Your task to perform on an android device: turn on translation in the chrome app Image 0: 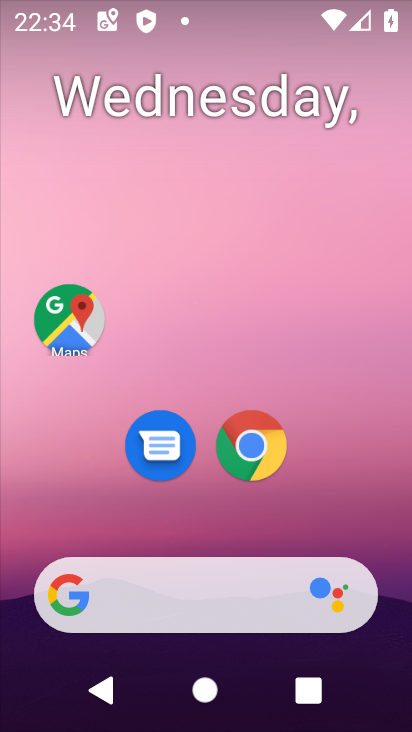
Step 0: click (252, 440)
Your task to perform on an android device: turn on translation in the chrome app Image 1: 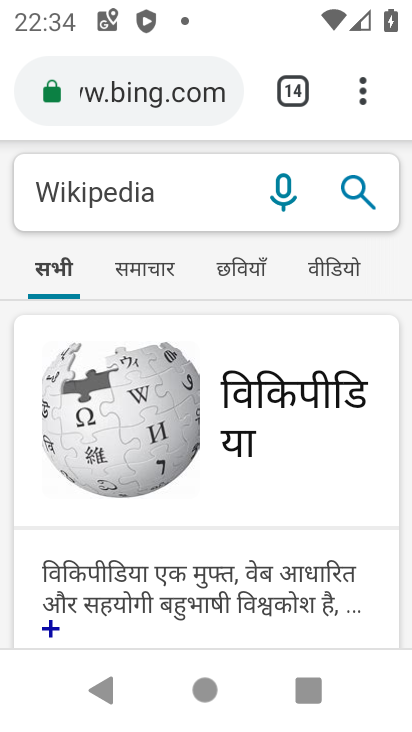
Step 1: click (364, 95)
Your task to perform on an android device: turn on translation in the chrome app Image 2: 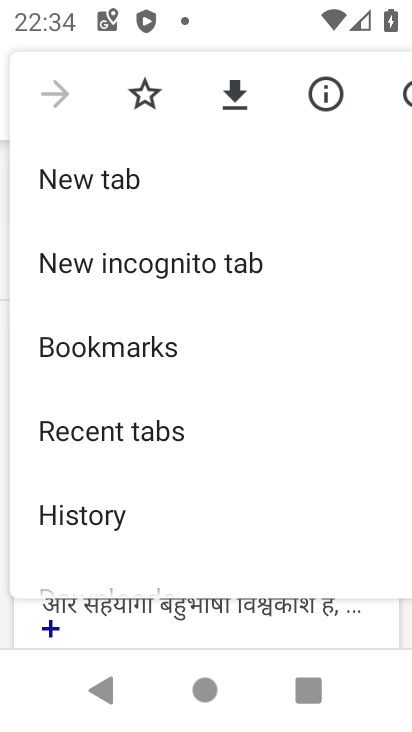
Step 2: drag from (183, 504) to (231, 214)
Your task to perform on an android device: turn on translation in the chrome app Image 3: 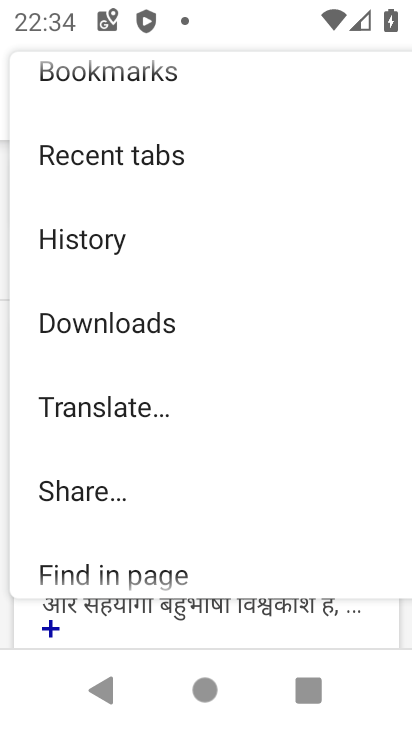
Step 3: drag from (125, 500) to (163, 123)
Your task to perform on an android device: turn on translation in the chrome app Image 4: 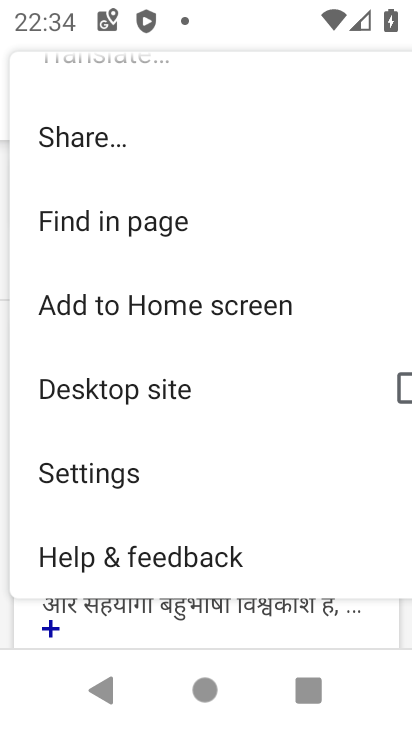
Step 4: click (136, 468)
Your task to perform on an android device: turn on translation in the chrome app Image 5: 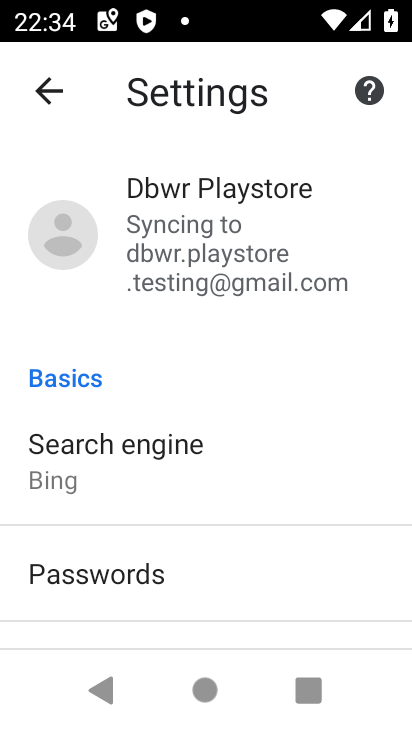
Step 5: drag from (141, 581) to (157, 489)
Your task to perform on an android device: turn on translation in the chrome app Image 6: 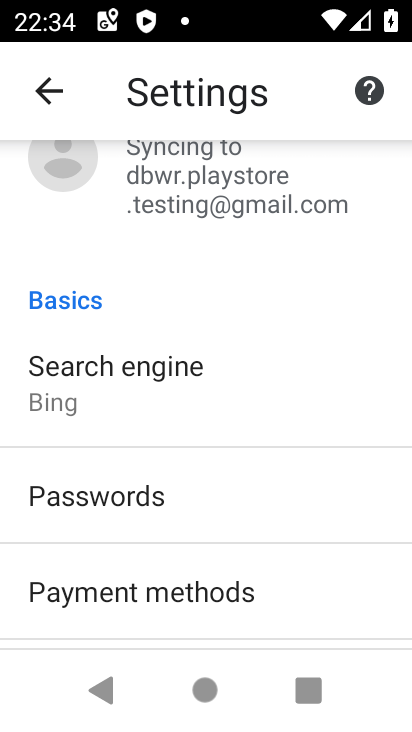
Step 6: drag from (136, 590) to (239, 228)
Your task to perform on an android device: turn on translation in the chrome app Image 7: 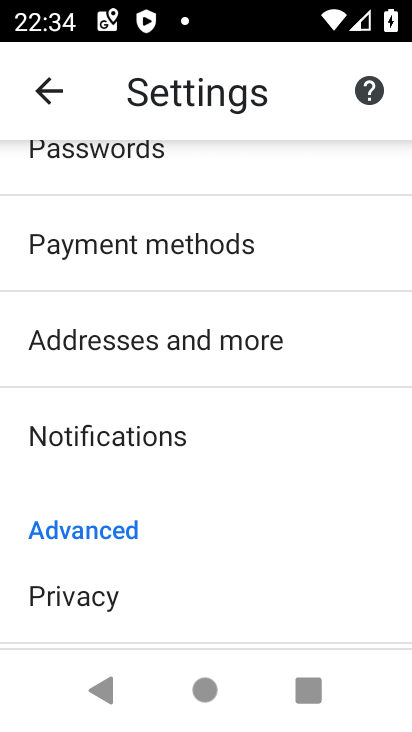
Step 7: drag from (236, 576) to (315, 203)
Your task to perform on an android device: turn on translation in the chrome app Image 8: 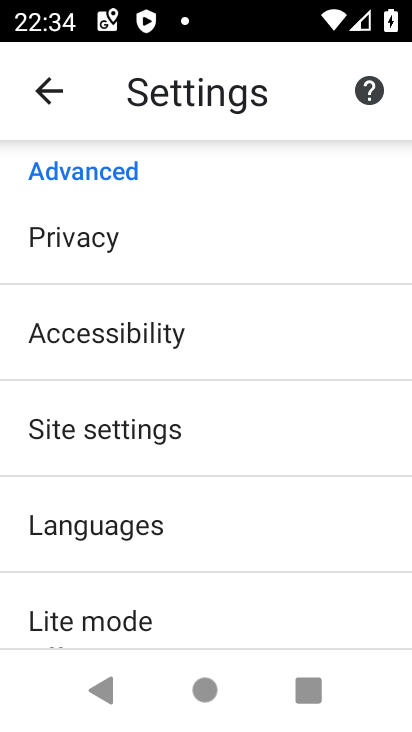
Step 8: click (147, 521)
Your task to perform on an android device: turn on translation in the chrome app Image 9: 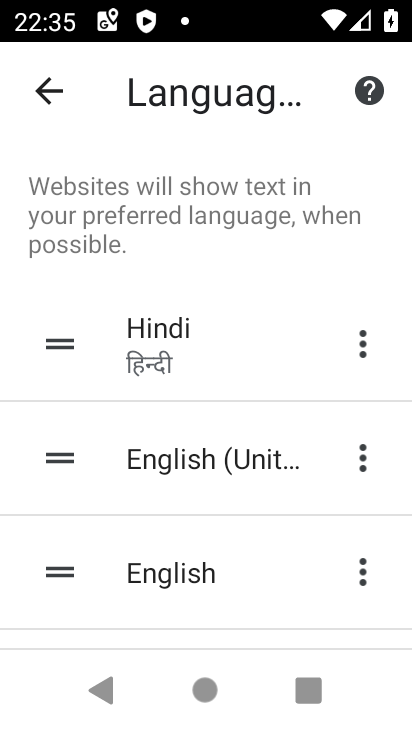
Step 9: drag from (176, 530) to (253, 278)
Your task to perform on an android device: turn on translation in the chrome app Image 10: 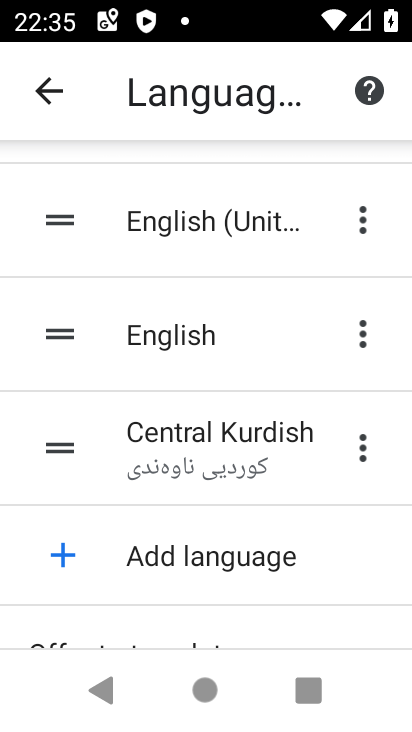
Step 10: drag from (199, 530) to (247, 227)
Your task to perform on an android device: turn on translation in the chrome app Image 11: 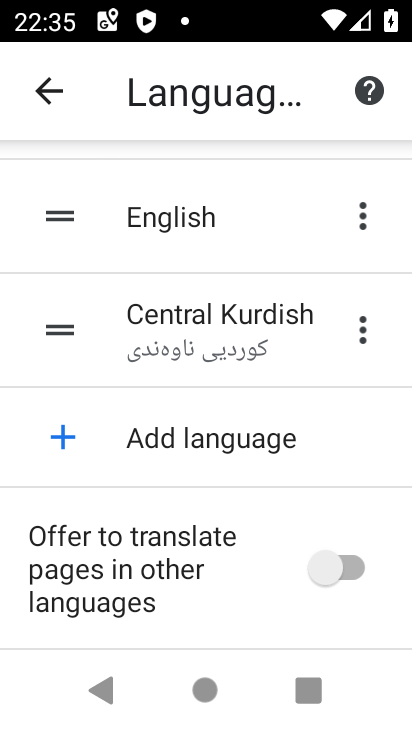
Step 11: click (338, 568)
Your task to perform on an android device: turn on translation in the chrome app Image 12: 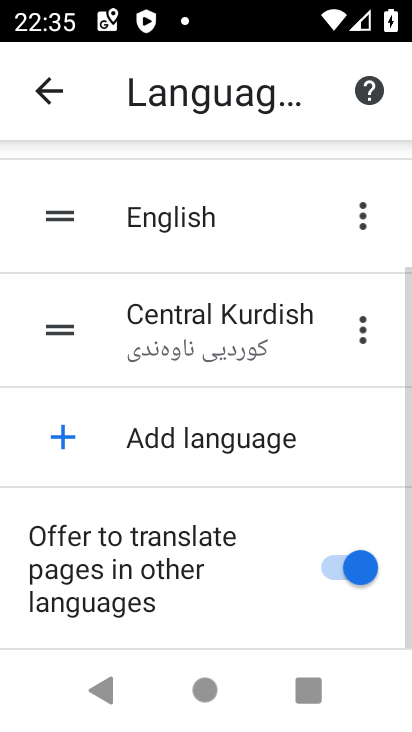
Step 12: task complete